Your task to perform on an android device: manage bookmarks in the chrome app Image 0: 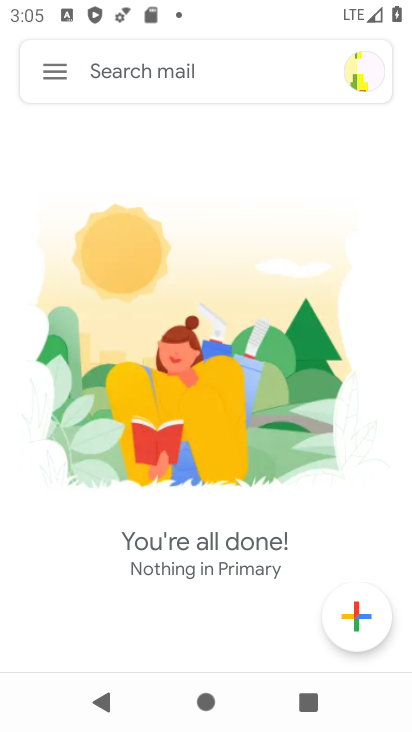
Step 0: press home button
Your task to perform on an android device: manage bookmarks in the chrome app Image 1: 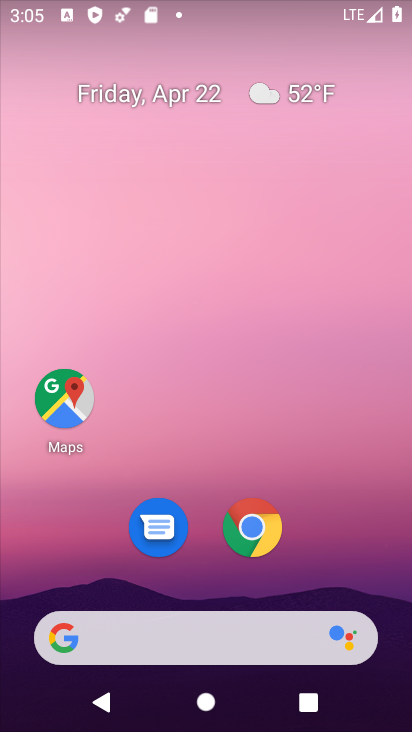
Step 1: drag from (302, 497) to (348, 82)
Your task to perform on an android device: manage bookmarks in the chrome app Image 2: 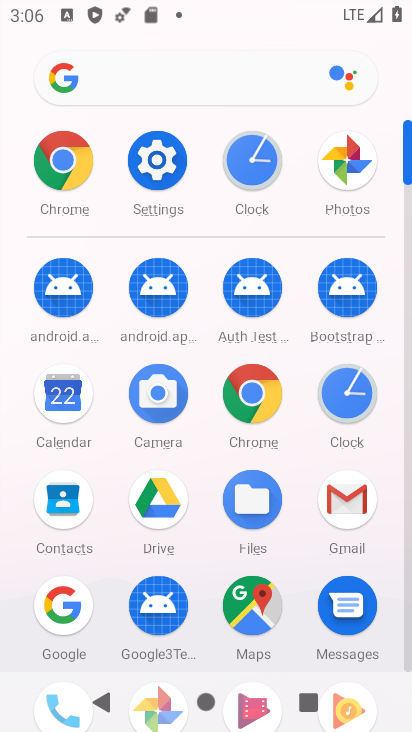
Step 2: click (61, 157)
Your task to perform on an android device: manage bookmarks in the chrome app Image 3: 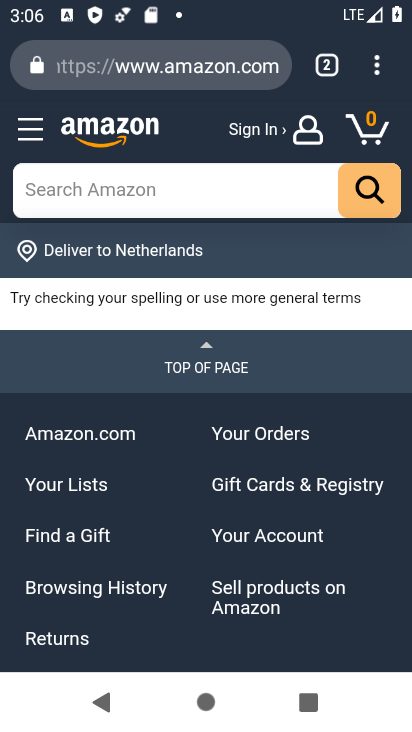
Step 3: drag from (379, 76) to (159, 253)
Your task to perform on an android device: manage bookmarks in the chrome app Image 4: 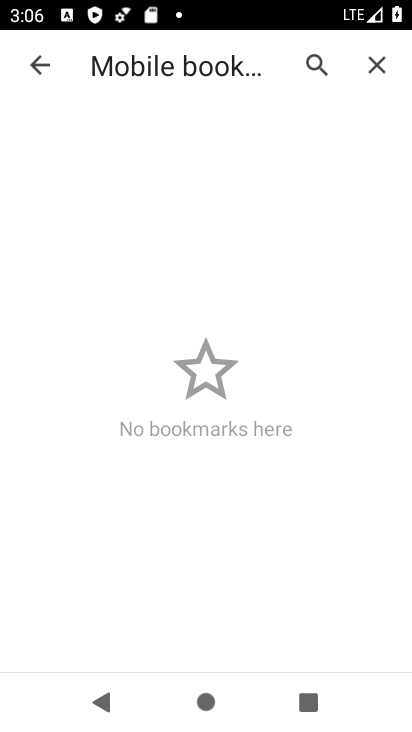
Step 4: click (172, 414)
Your task to perform on an android device: manage bookmarks in the chrome app Image 5: 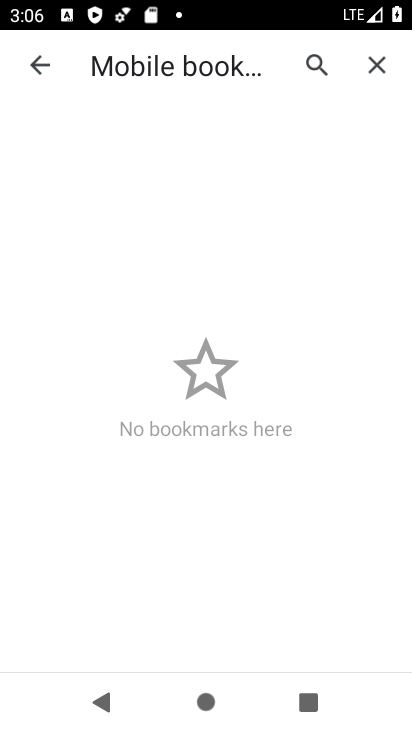
Step 5: task complete